Your task to perform on an android device: Search for vegetarian restaurants on Maps Image 0: 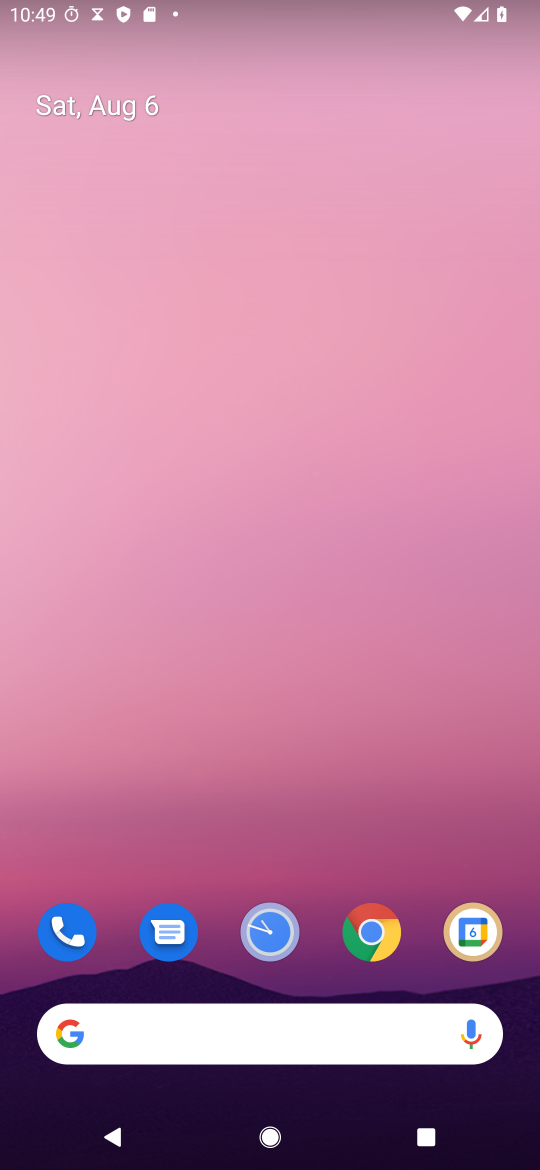
Step 0: drag from (259, 1052) to (299, 235)
Your task to perform on an android device: Search for vegetarian restaurants on Maps Image 1: 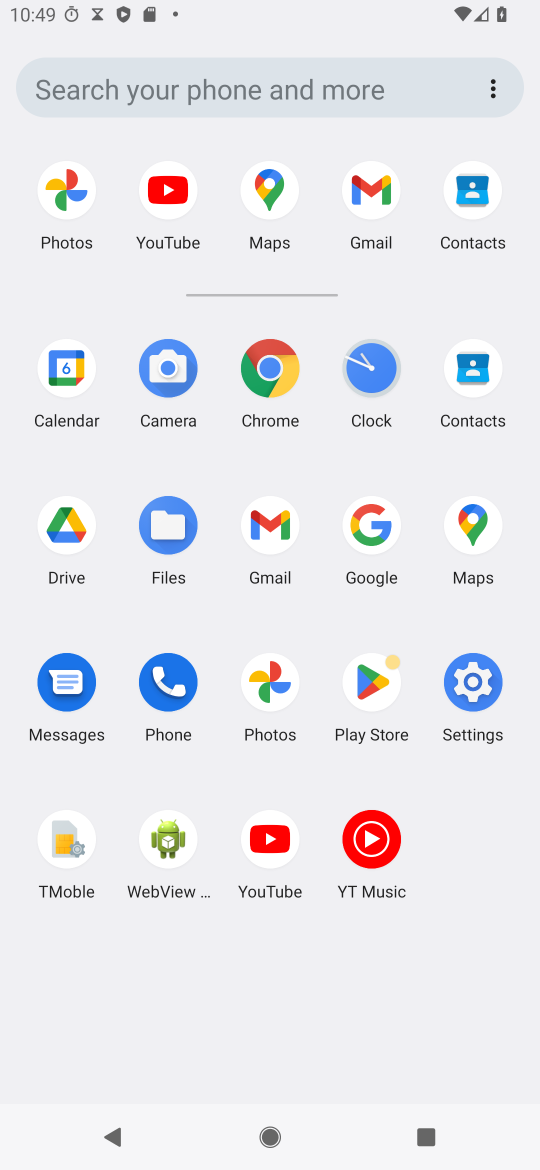
Step 1: click (267, 182)
Your task to perform on an android device: Search for vegetarian restaurants on Maps Image 2: 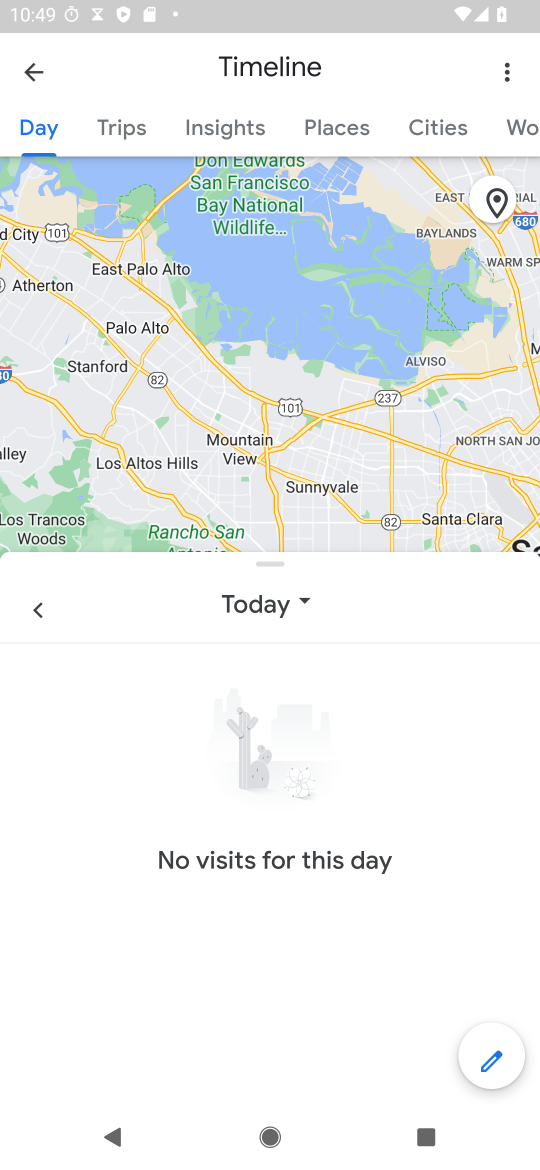
Step 2: press back button
Your task to perform on an android device: Search for vegetarian restaurants on Maps Image 3: 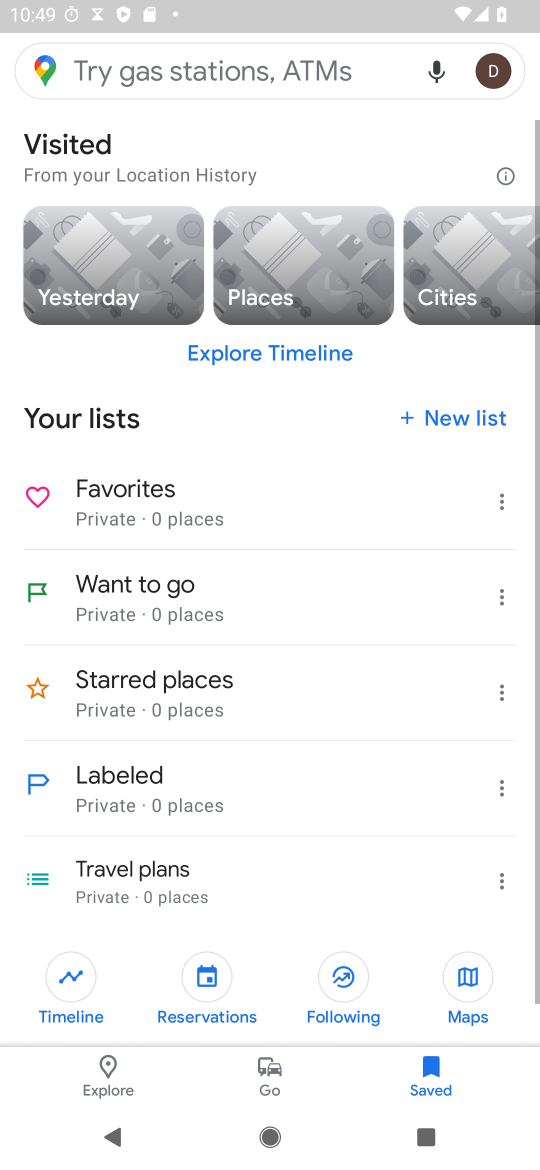
Step 3: click (255, 67)
Your task to perform on an android device: Search for vegetarian restaurants on Maps Image 4: 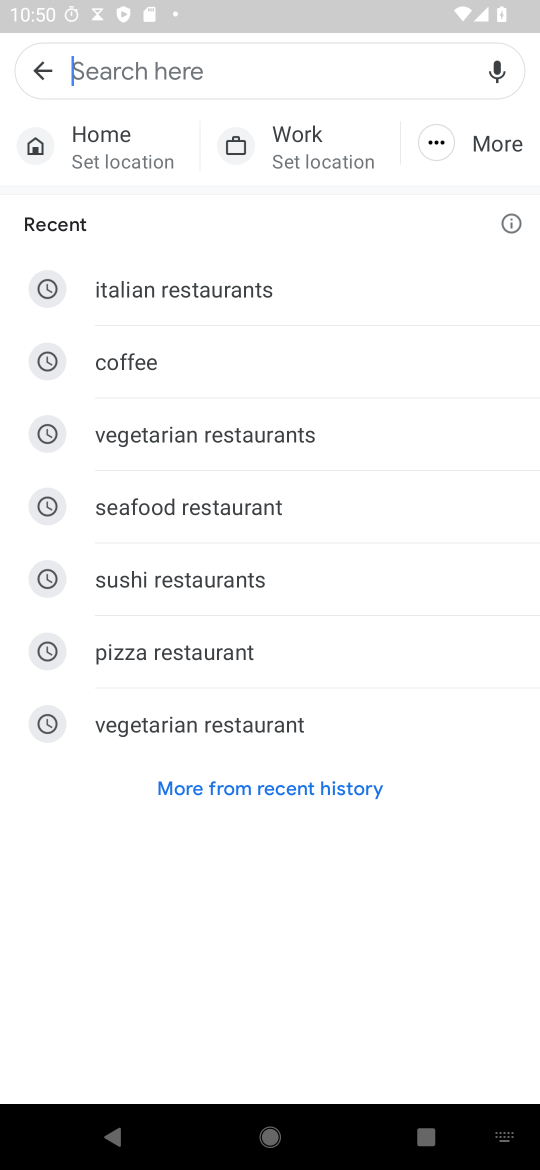
Step 4: type "vegetarian  restaurants"
Your task to perform on an android device: Search for vegetarian restaurants on Maps Image 5: 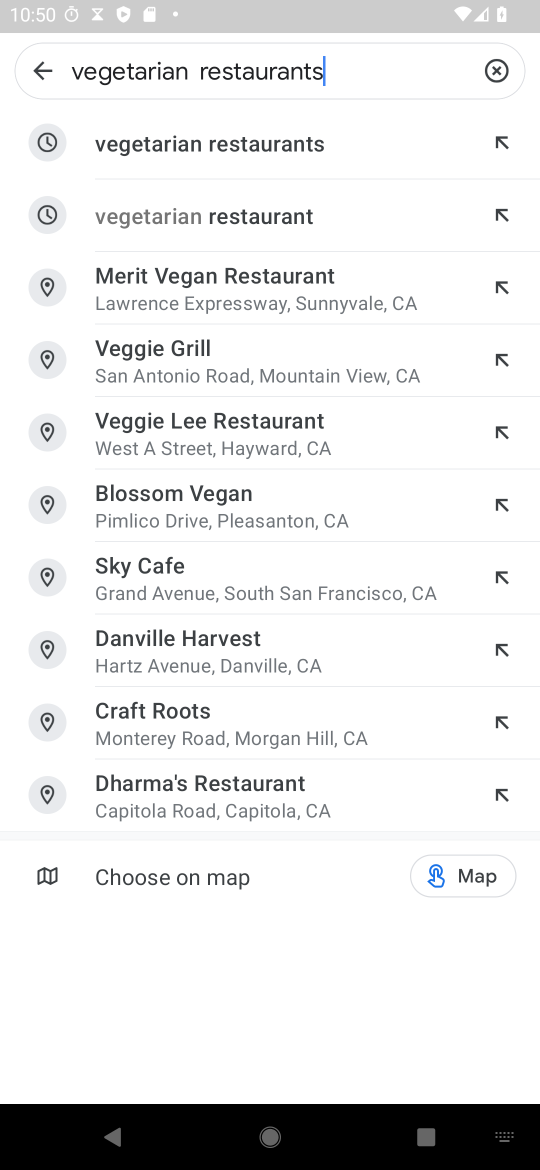
Step 5: click (209, 153)
Your task to perform on an android device: Search for vegetarian restaurants on Maps Image 6: 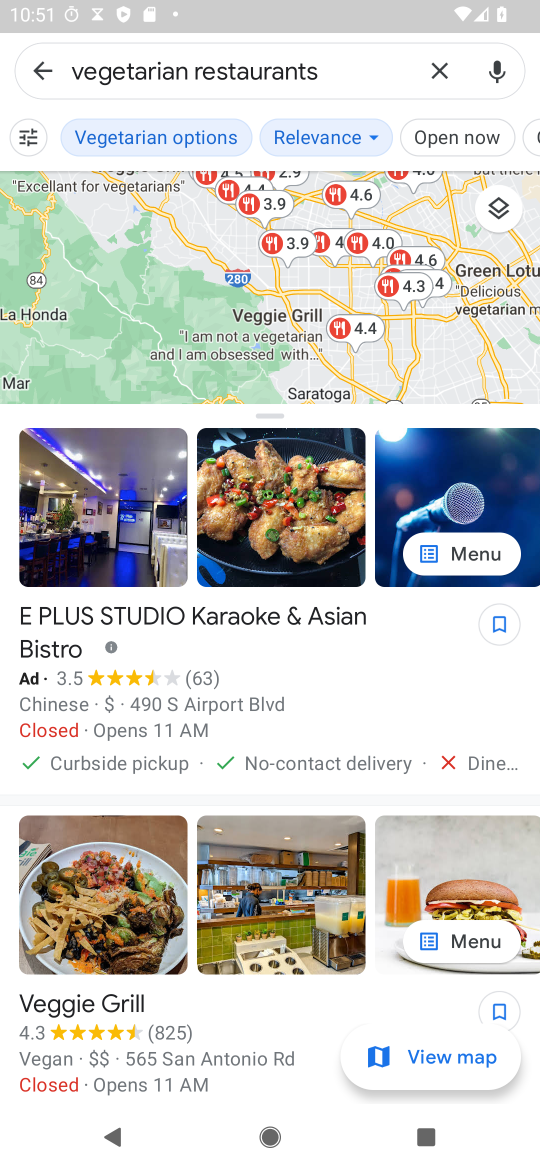
Step 6: task complete